Your task to perform on an android device: Toggle the flashlight Image 0: 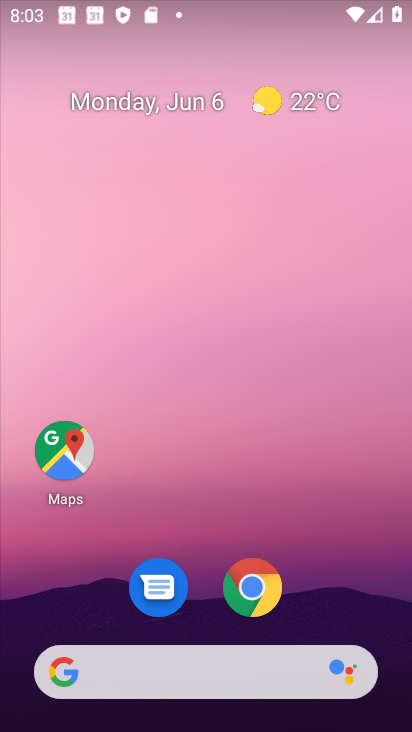
Step 0: drag from (234, 6) to (245, 479)
Your task to perform on an android device: Toggle the flashlight Image 1: 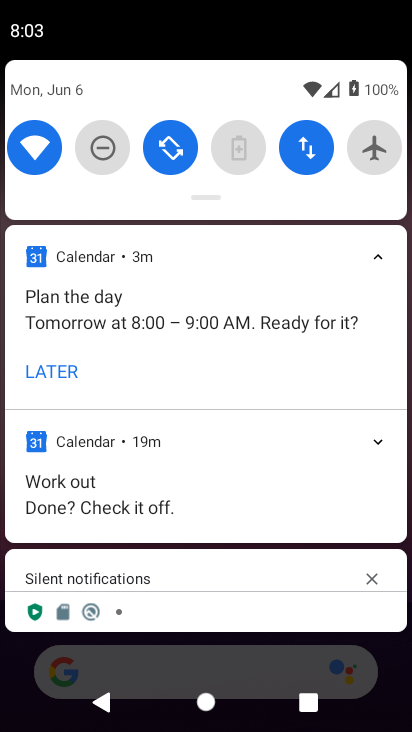
Step 1: drag from (271, 143) to (305, 527)
Your task to perform on an android device: Toggle the flashlight Image 2: 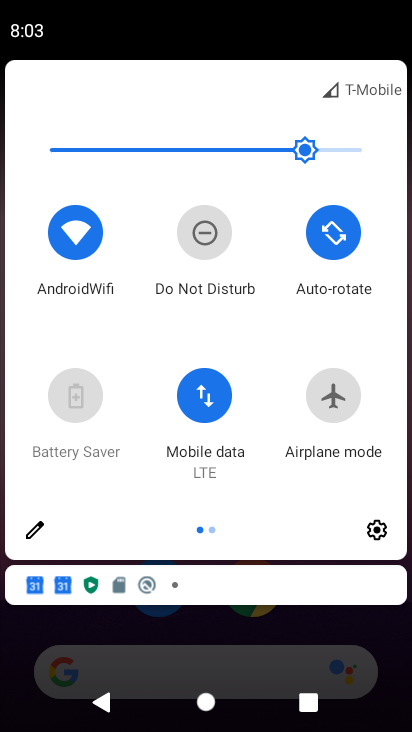
Step 2: drag from (381, 363) to (36, 493)
Your task to perform on an android device: Toggle the flashlight Image 3: 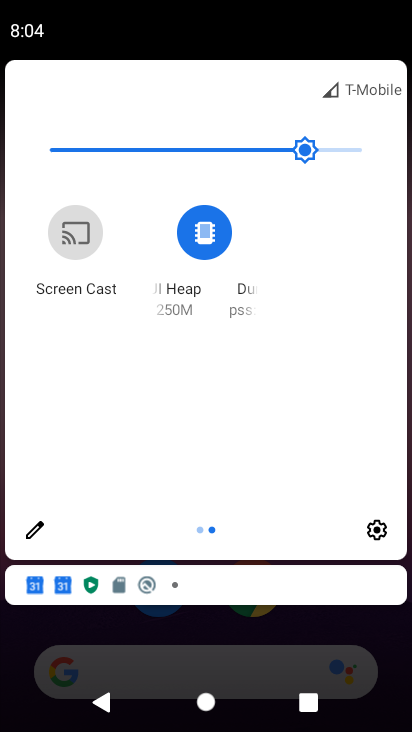
Step 3: click (20, 535)
Your task to perform on an android device: Toggle the flashlight Image 4: 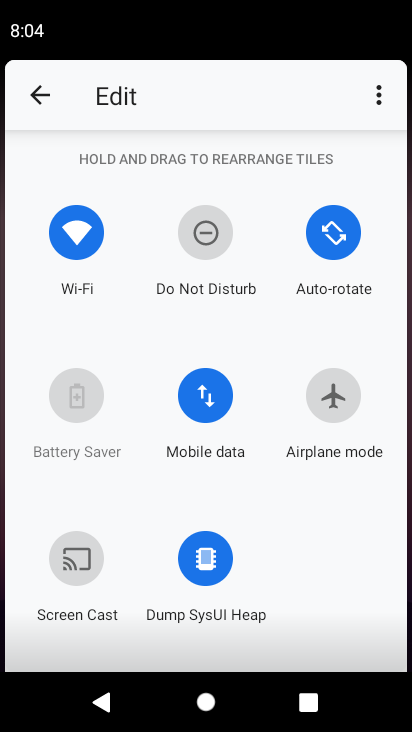
Step 4: task complete